Your task to perform on an android device: Add logitech g pro to the cart on newegg.com Image 0: 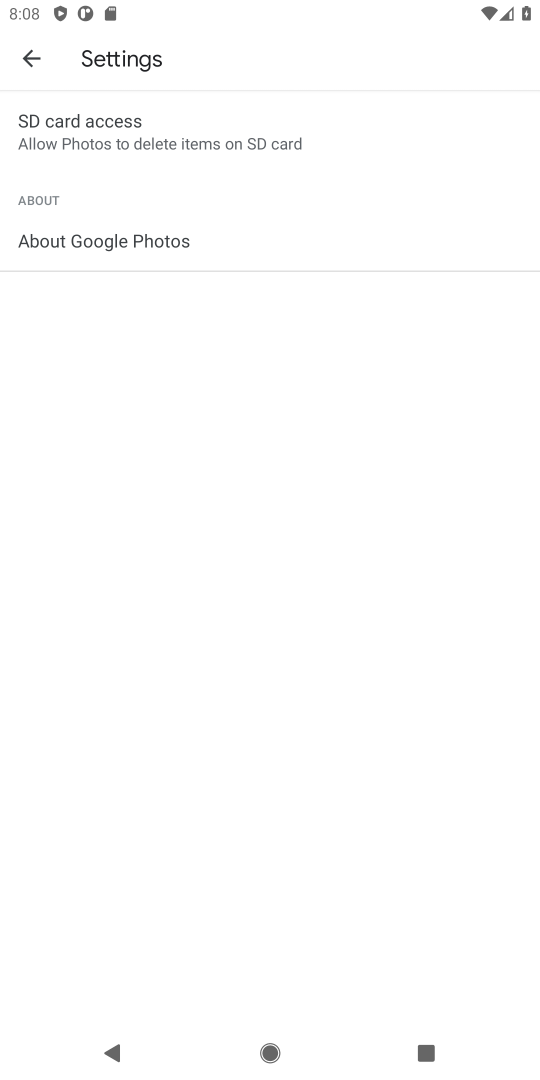
Step 0: press home button
Your task to perform on an android device: Add logitech g pro to the cart on newegg.com Image 1: 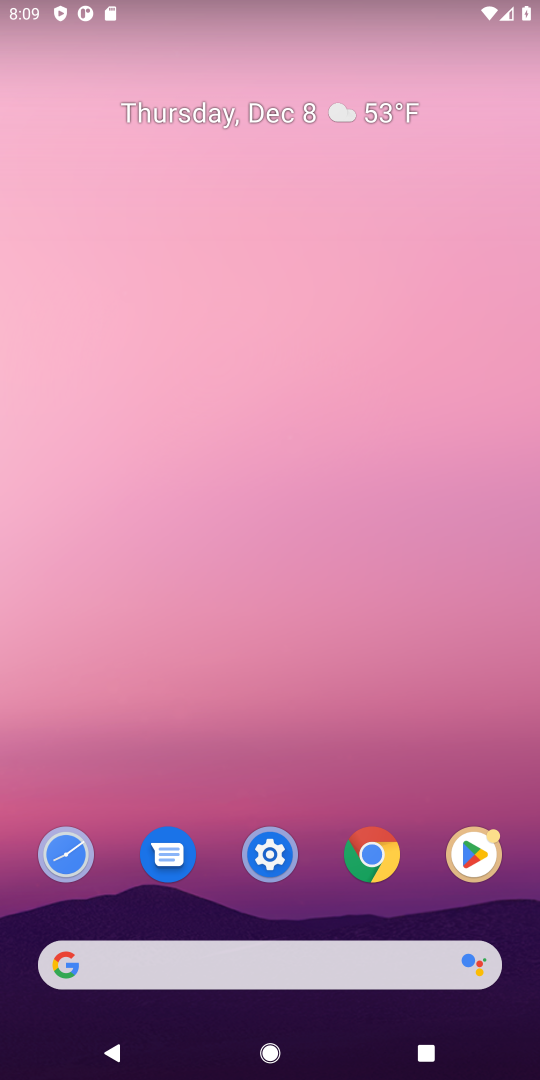
Step 1: click (114, 962)
Your task to perform on an android device: Add logitech g pro to the cart on newegg.com Image 2: 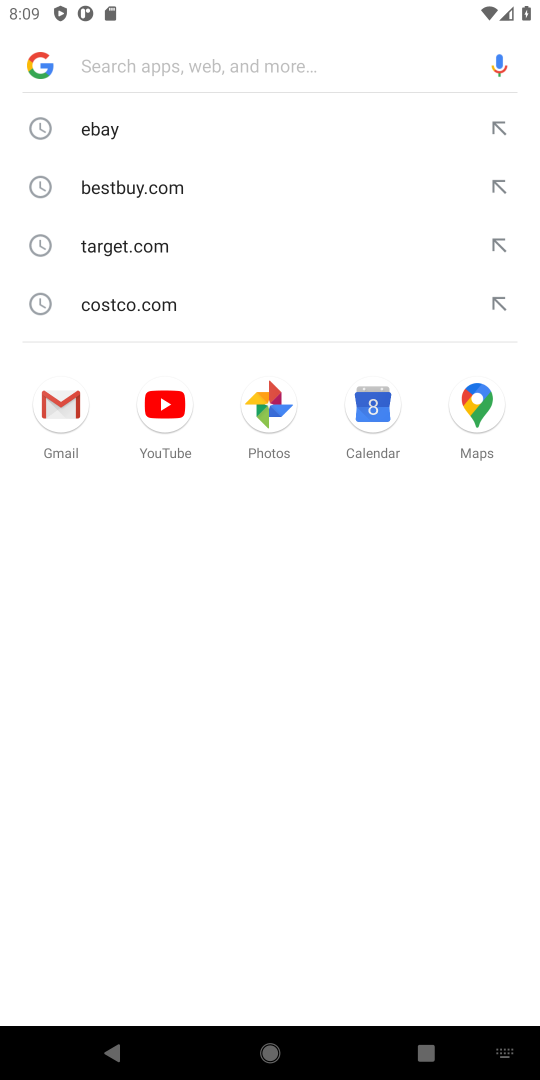
Step 2: type "newegg.com"
Your task to perform on an android device: Add logitech g pro to the cart on newegg.com Image 3: 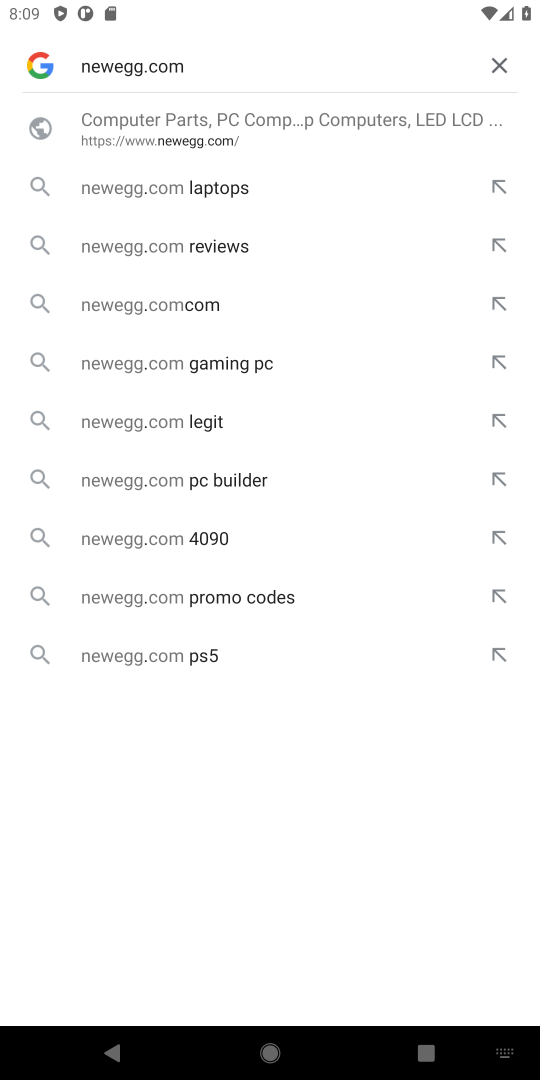
Step 3: press enter
Your task to perform on an android device: Add logitech g pro to the cart on newegg.com Image 4: 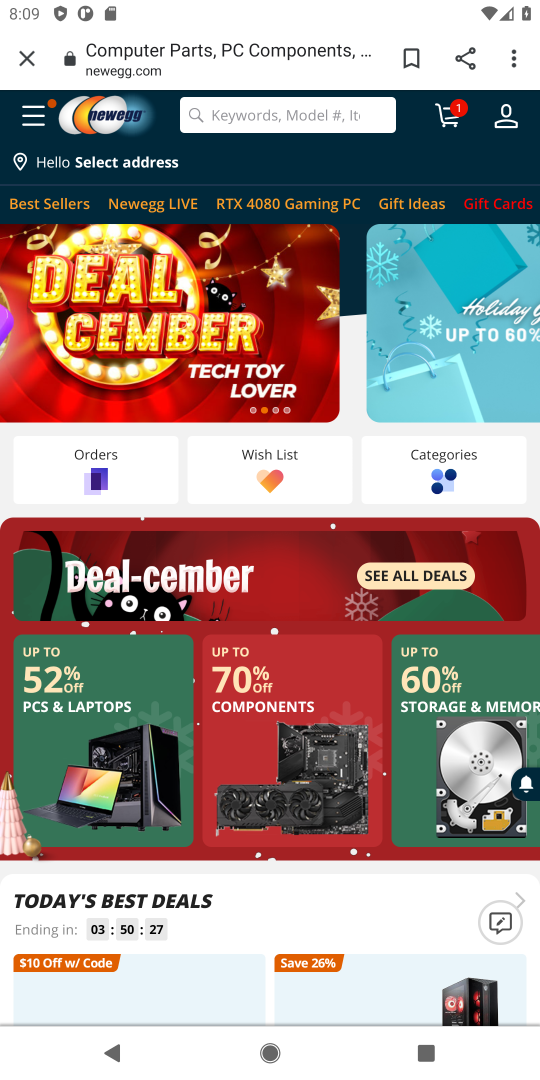
Step 4: click (234, 112)
Your task to perform on an android device: Add logitech g pro to the cart on newegg.com Image 5: 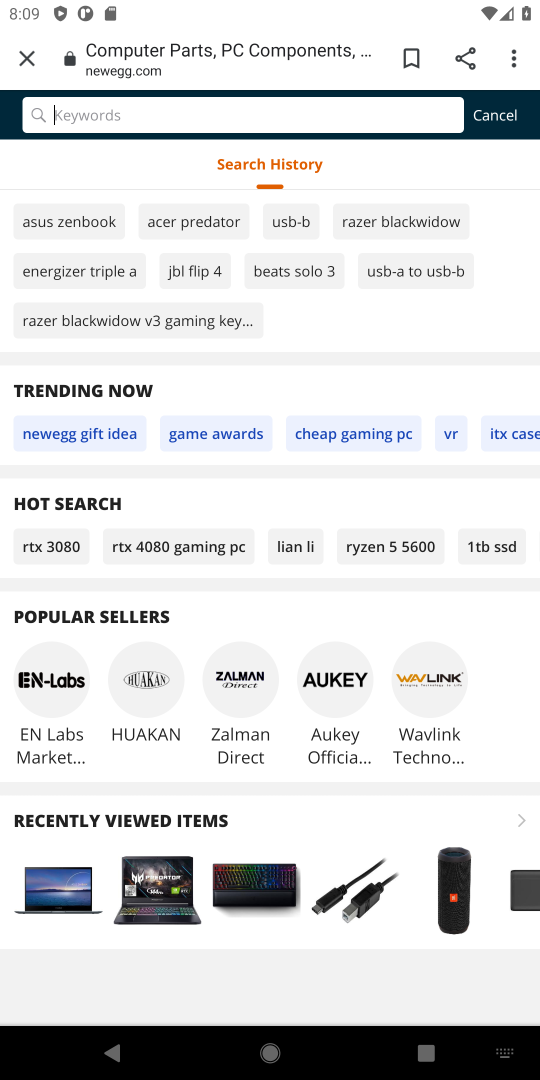
Step 5: press enter
Your task to perform on an android device: Add logitech g pro to the cart on newegg.com Image 6: 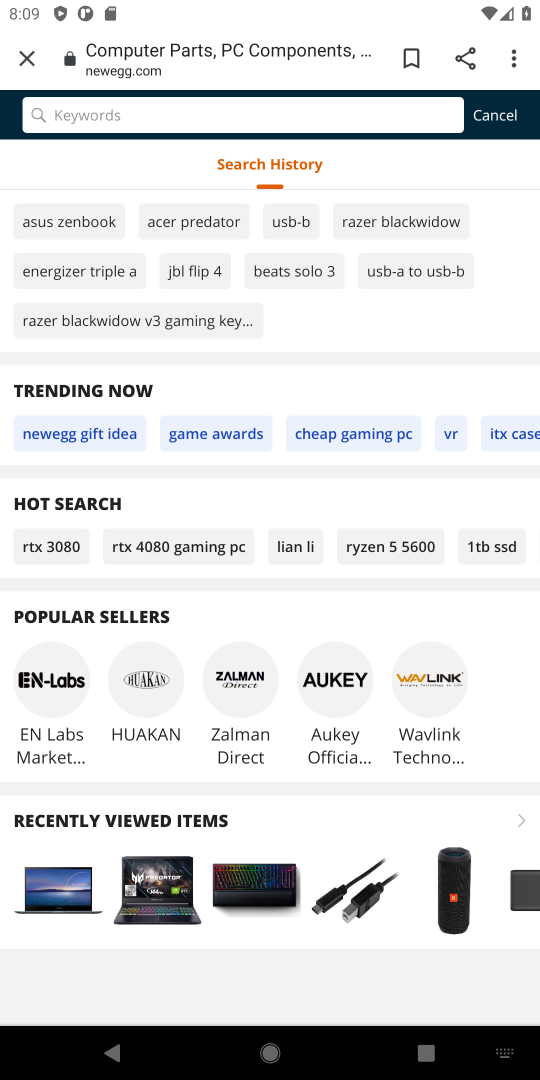
Step 6: type "logitech g pro"
Your task to perform on an android device: Add logitech g pro to the cart on newegg.com Image 7: 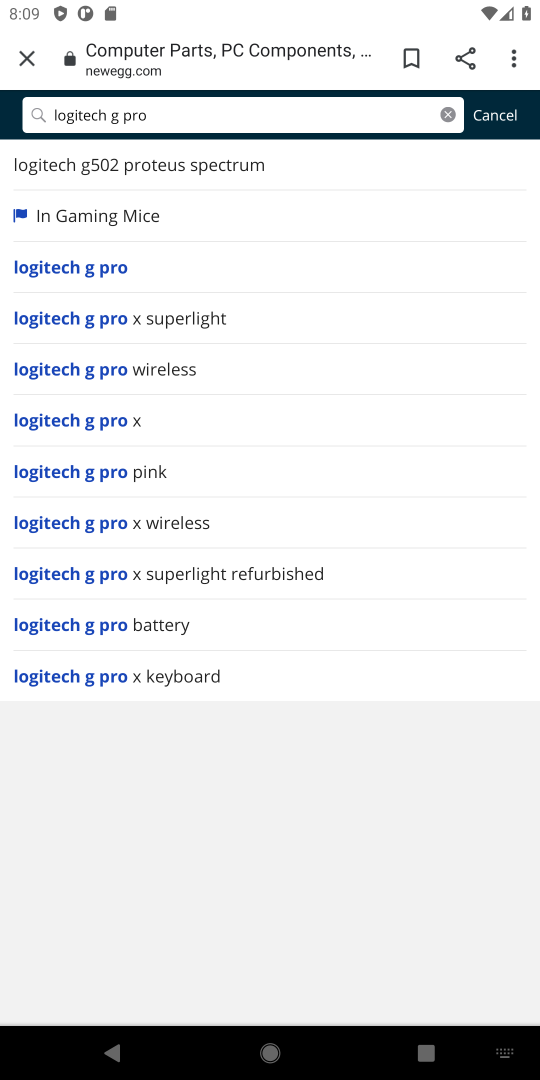
Step 7: press enter
Your task to perform on an android device: Add logitech g pro to the cart on newegg.com Image 8: 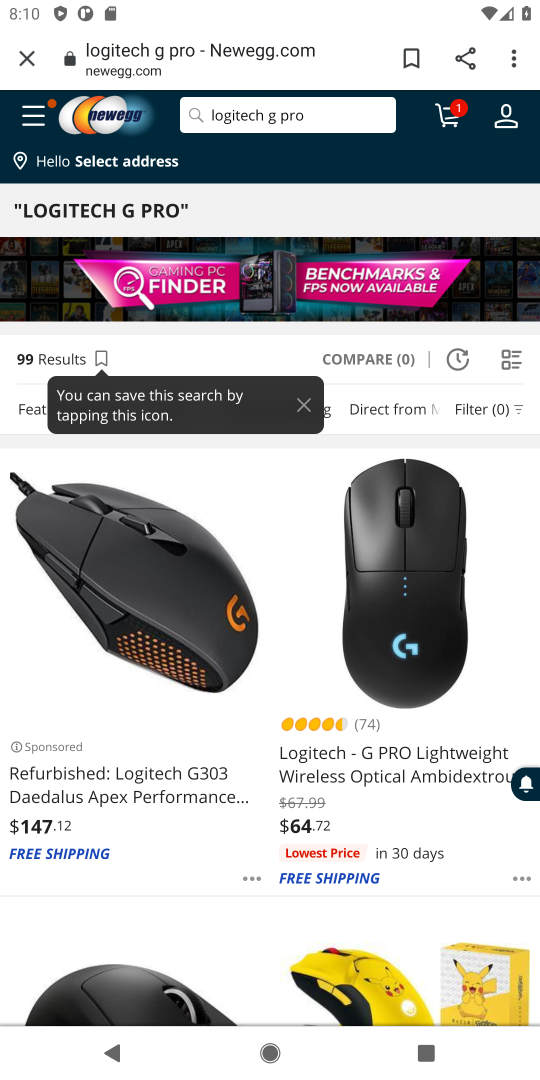
Step 8: click (389, 766)
Your task to perform on an android device: Add logitech g pro to the cart on newegg.com Image 9: 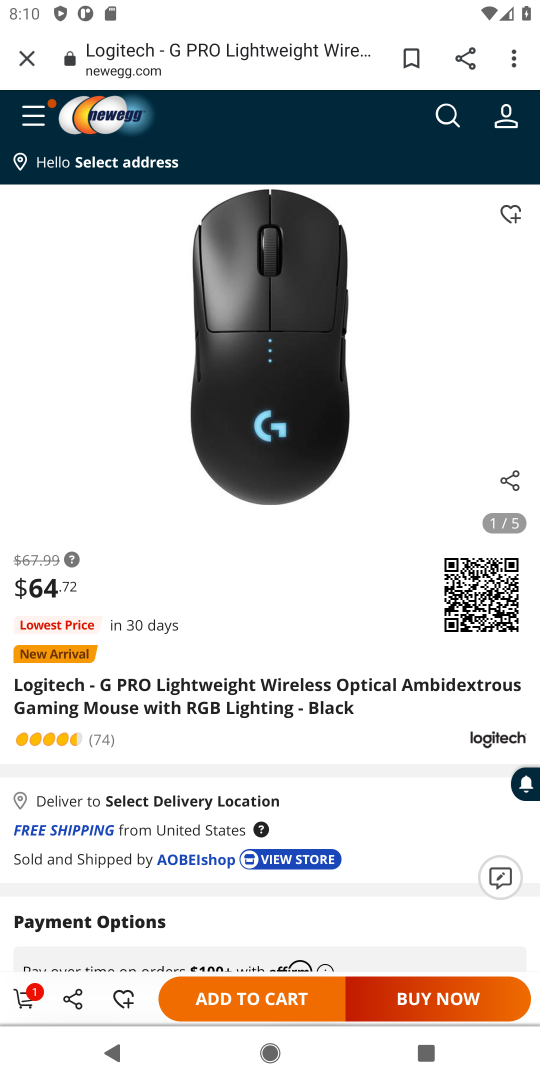
Step 9: click (226, 1002)
Your task to perform on an android device: Add logitech g pro to the cart on newegg.com Image 10: 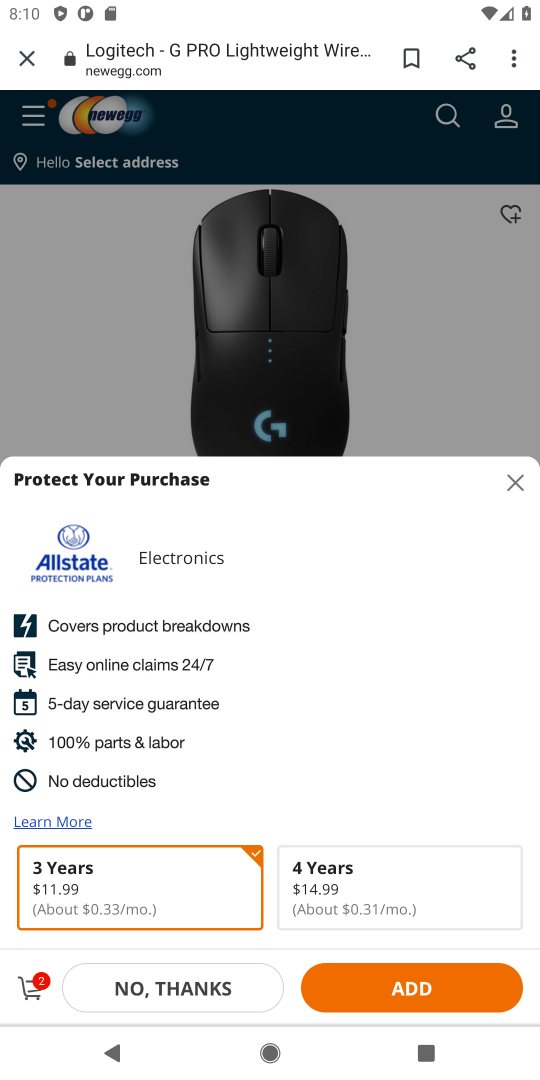
Step 10: click (157, 988)
Your task to perform on an android device: Add logitech g pro to the cart on newegg.com Image 11: 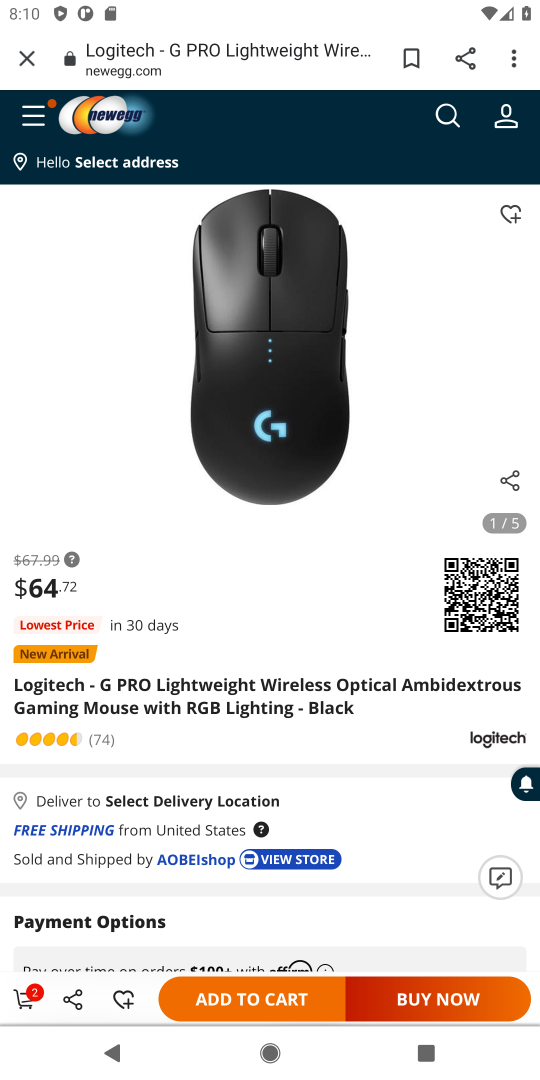
Step 11: task complete